Your task to perform on an android device: Open eBay Image 0: 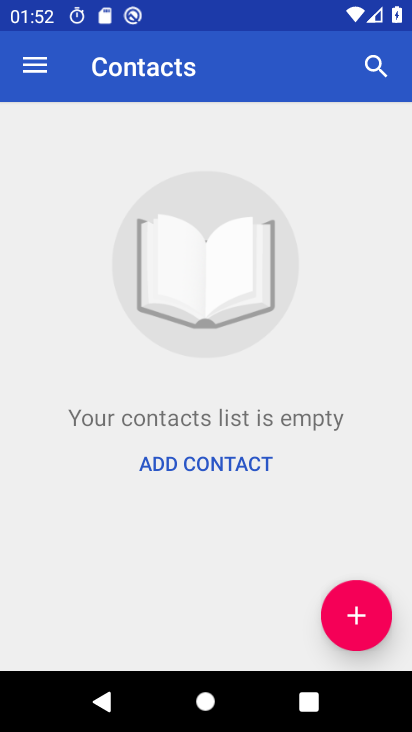
Step 0: press home button
Your task to perform on an android device: Open eBay Image 1: 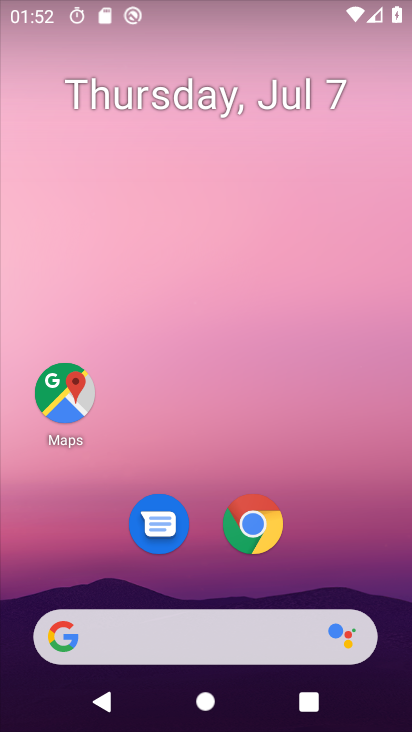
Step 1: click (260, 531)
Your task to perform on an android device: Open eBay Image 2: 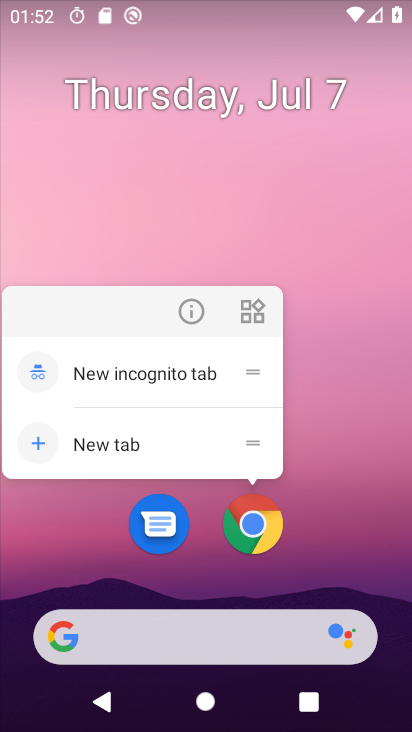
Step 2: click (217, 646)
Your task to perform on an android device: Open eBay Image 3: 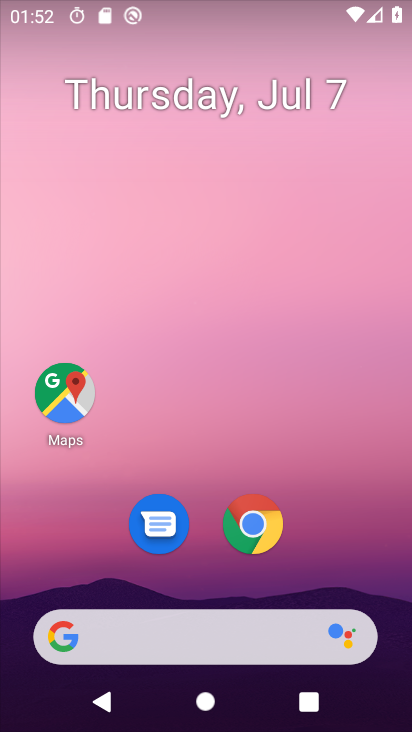
Step 3: click (217, 644)
Your task to perform on an android device: Open eBay Image 4: 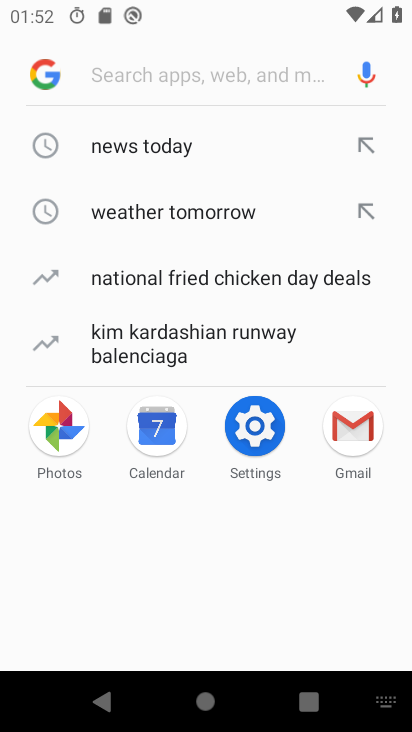
Step 4: type "ebay"
Your task to perform on an android device: Open eBay Image 5: 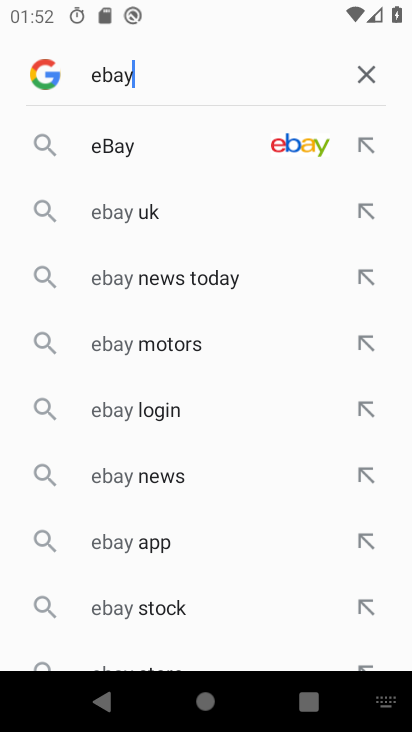
Step 5: click (295, 142)
Your task to perform on an android device: Open eBay Image 6: 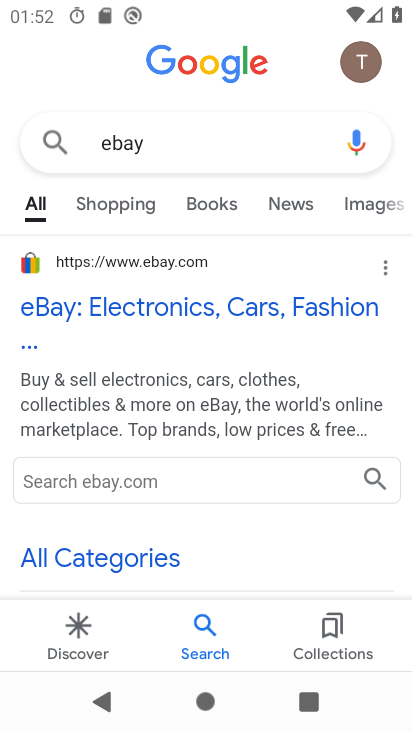
Step 6: click (59, 309)
Your task to perform on an android device: Open eBay Image 7: 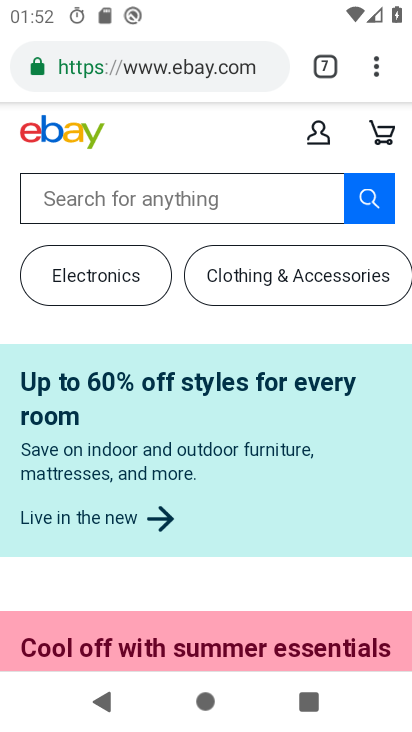
Step 7: task complete